Your task to perform on an android device: open app "Fetch Rewards" Image 0: 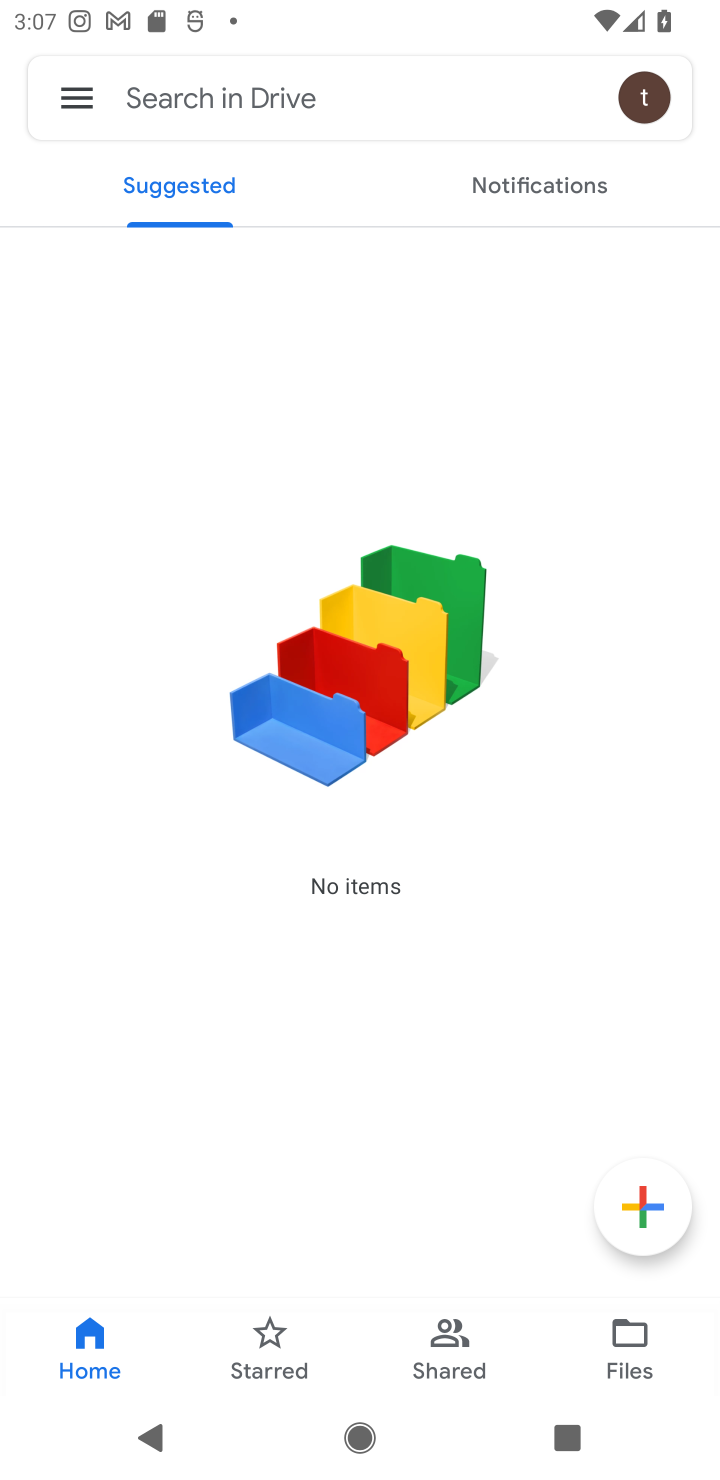
Step 0: press home button
Your task to perform on an android device: open app "Fetch Rewards" Image 1: 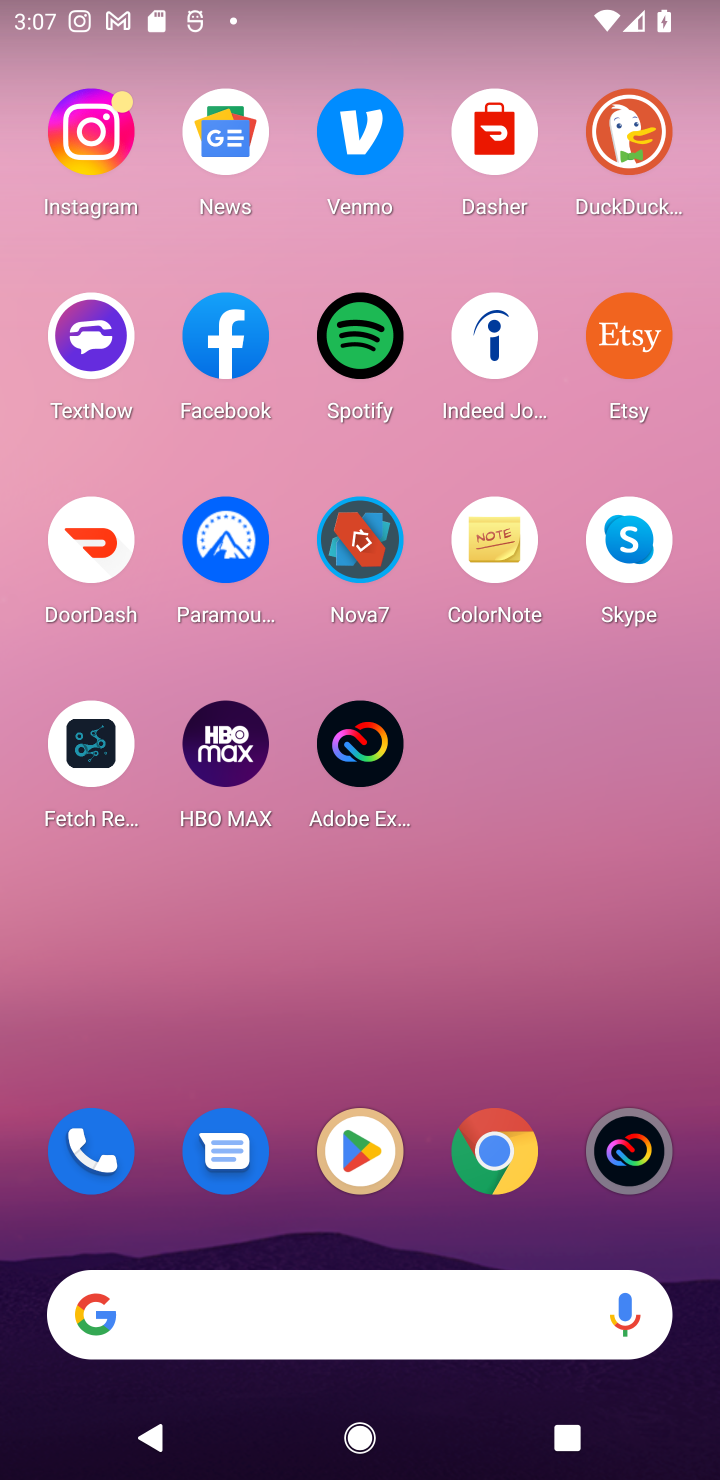
Step 1: press home button
Your task to perform on an android device: open app "Fetch Rewards" Image 2: 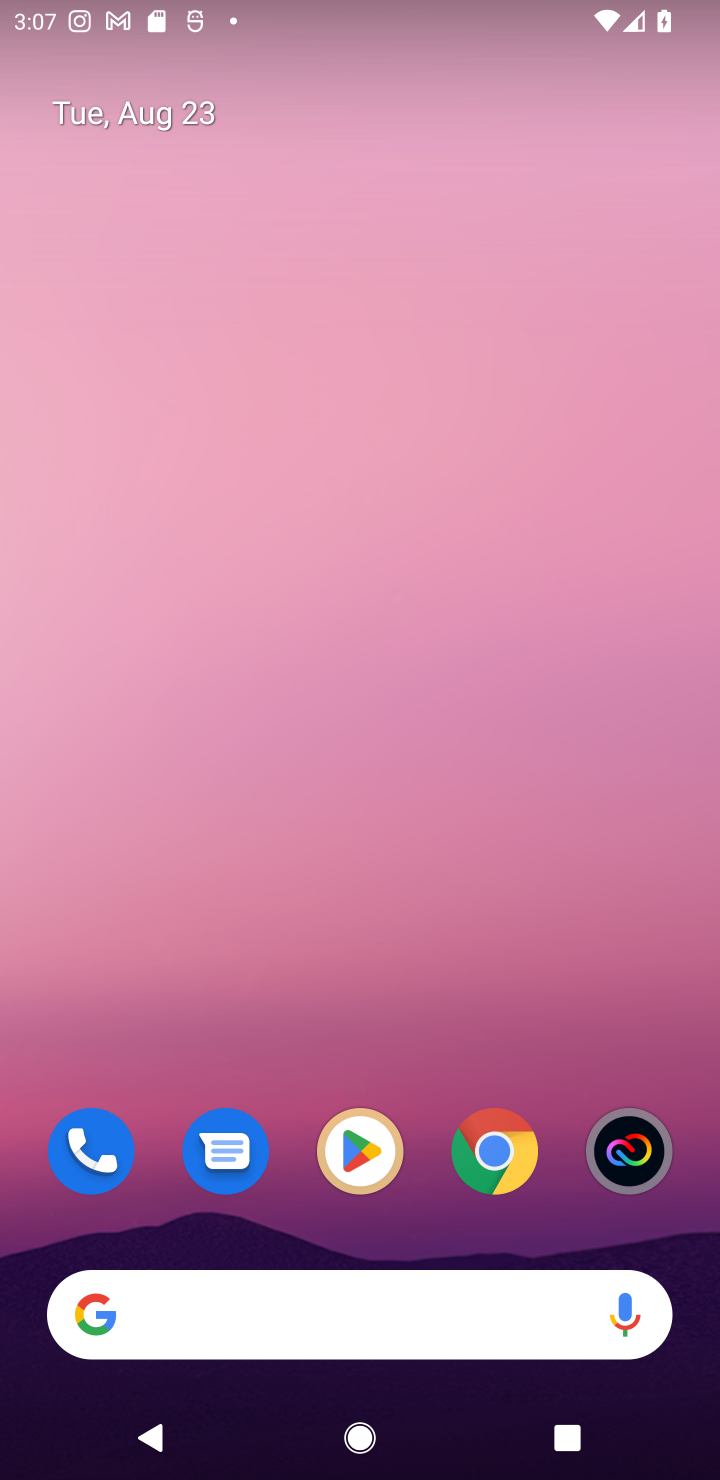
Step 2: click (362, 1156)
Your task to perform on an android device: open app "Fetch Rewards" Image 3: 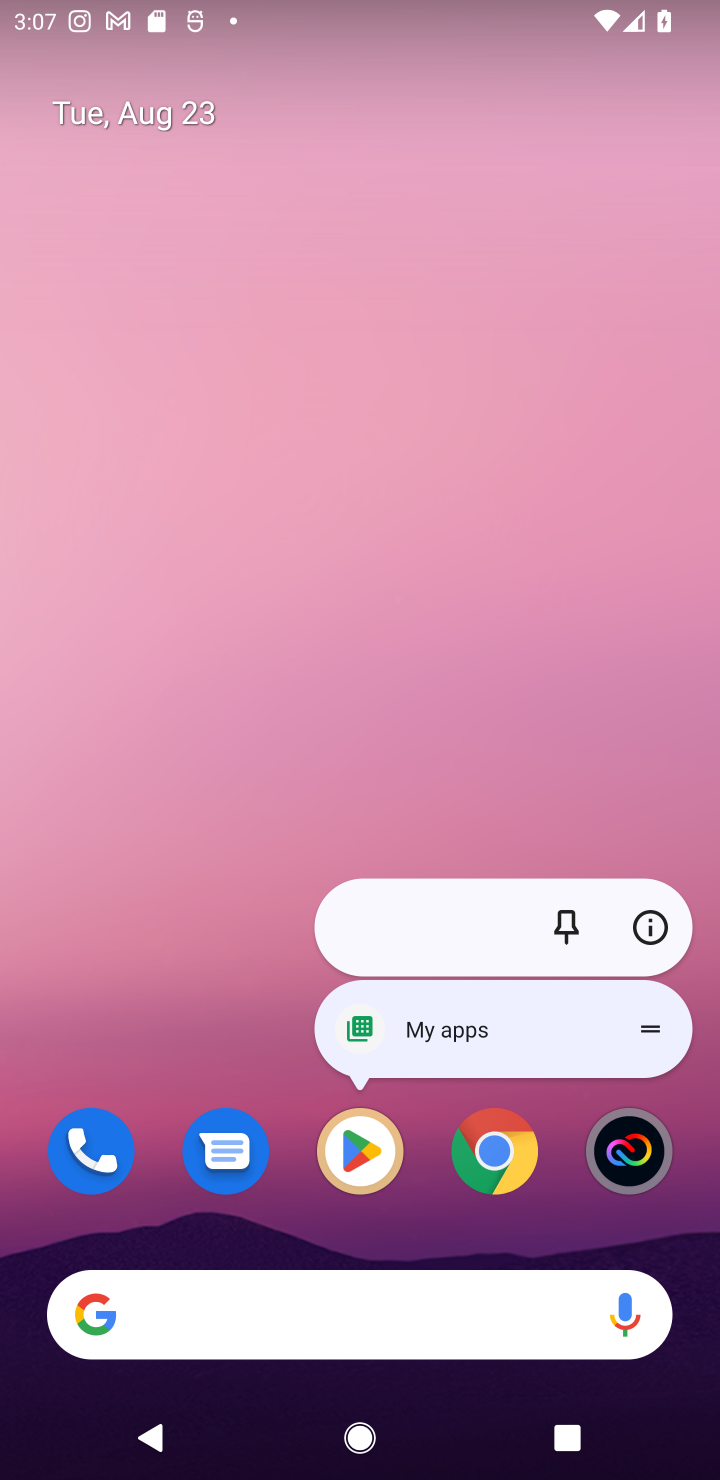
Step 3: click (362, 1158)
Your task to perform on an android device: open app "Fetch Rewards" Image 4: 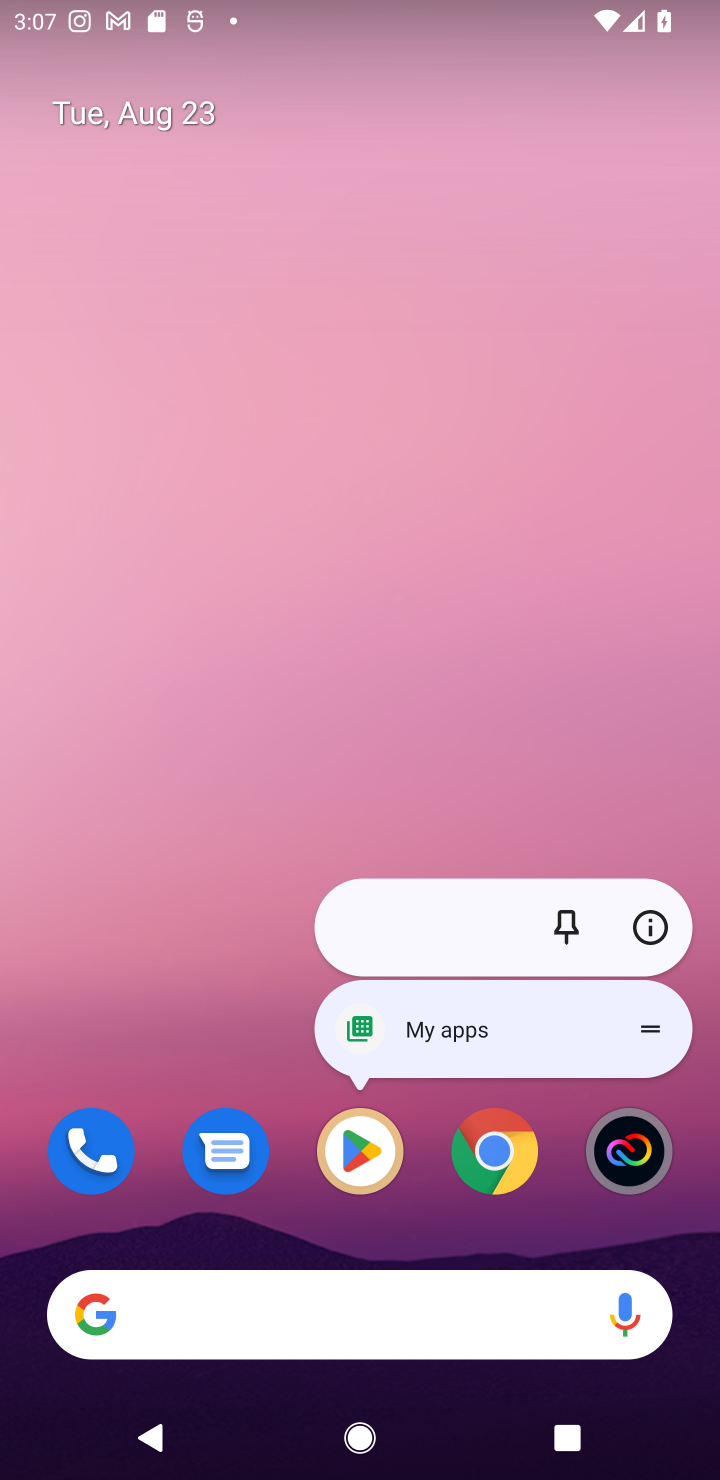
Step 4: click (362, 1158)
Your task to perform on an android device: open app "Fetch Rewards" Image 5: 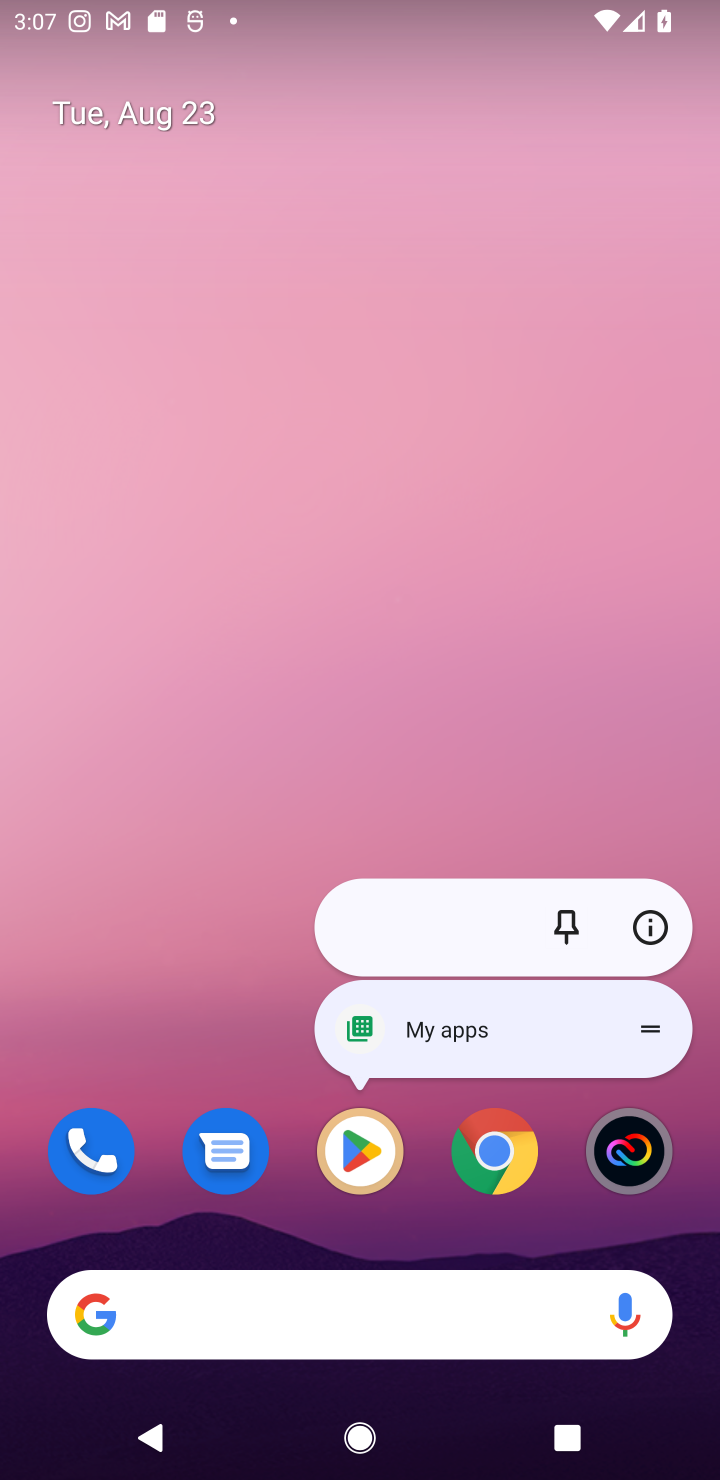
Step 5: click (357, 1156)
Your task to perform on an android device: open app "Fetch Rewards" Image 6: 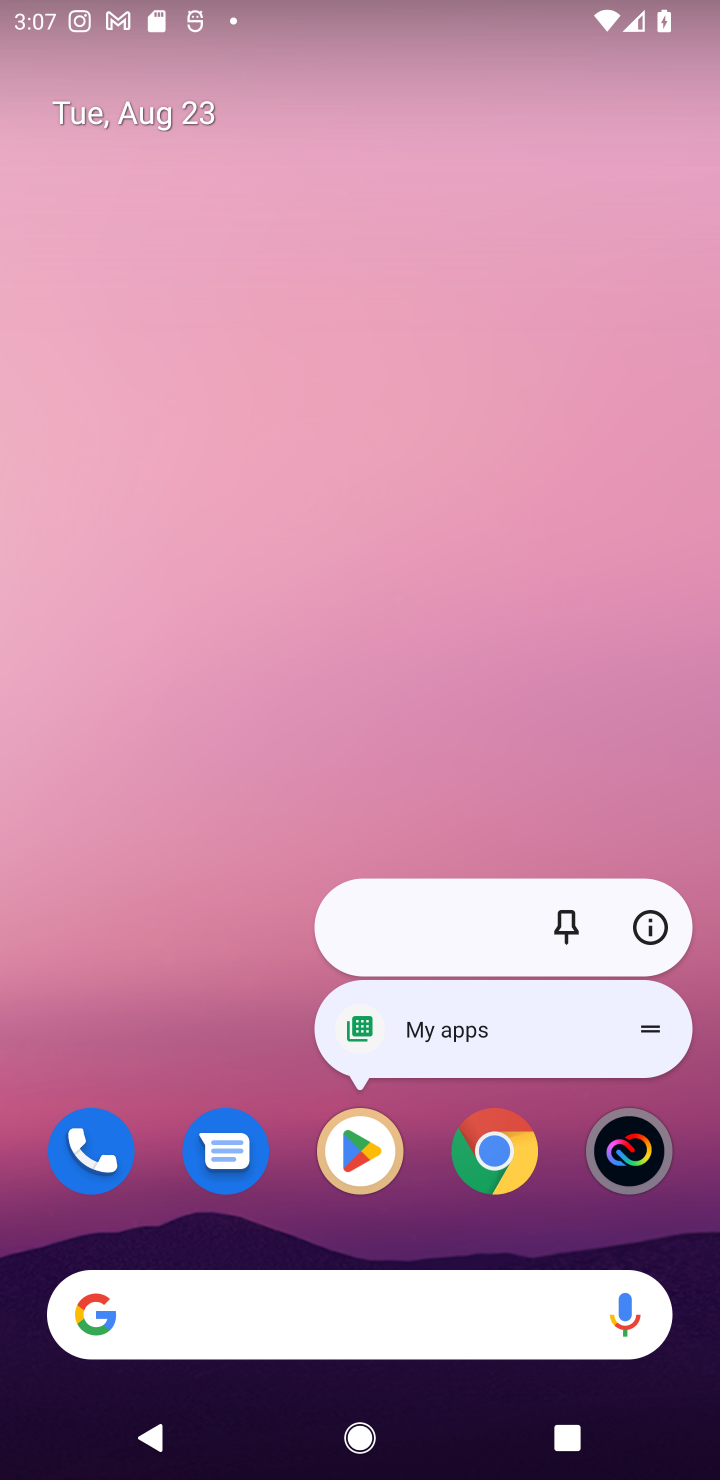
Step 6: click (357, 1156)
Your task to perform on an android device: open app "Fetch Rewards" Image 7: 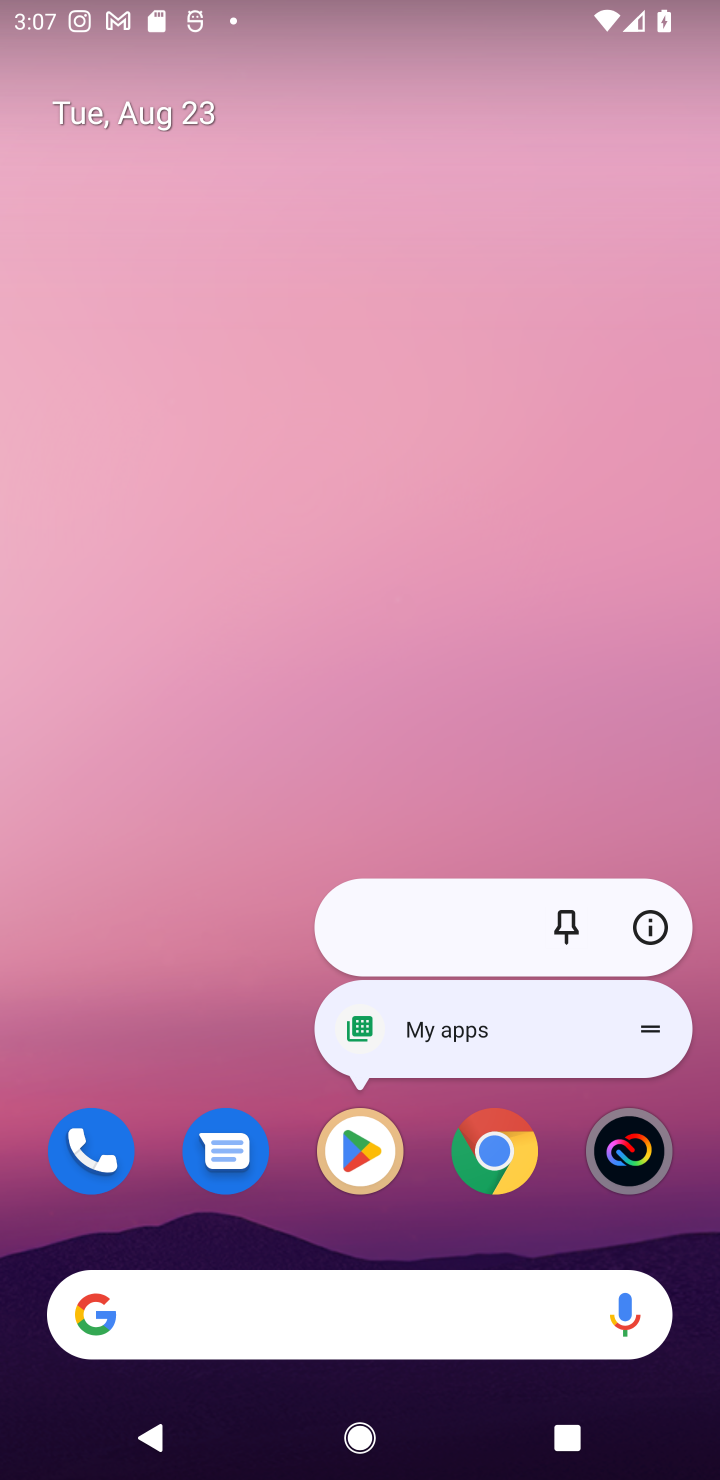
Step 7: click (357, 1154)
Your task to perform on an android device: open app "Fetch Rewards" Image 8: 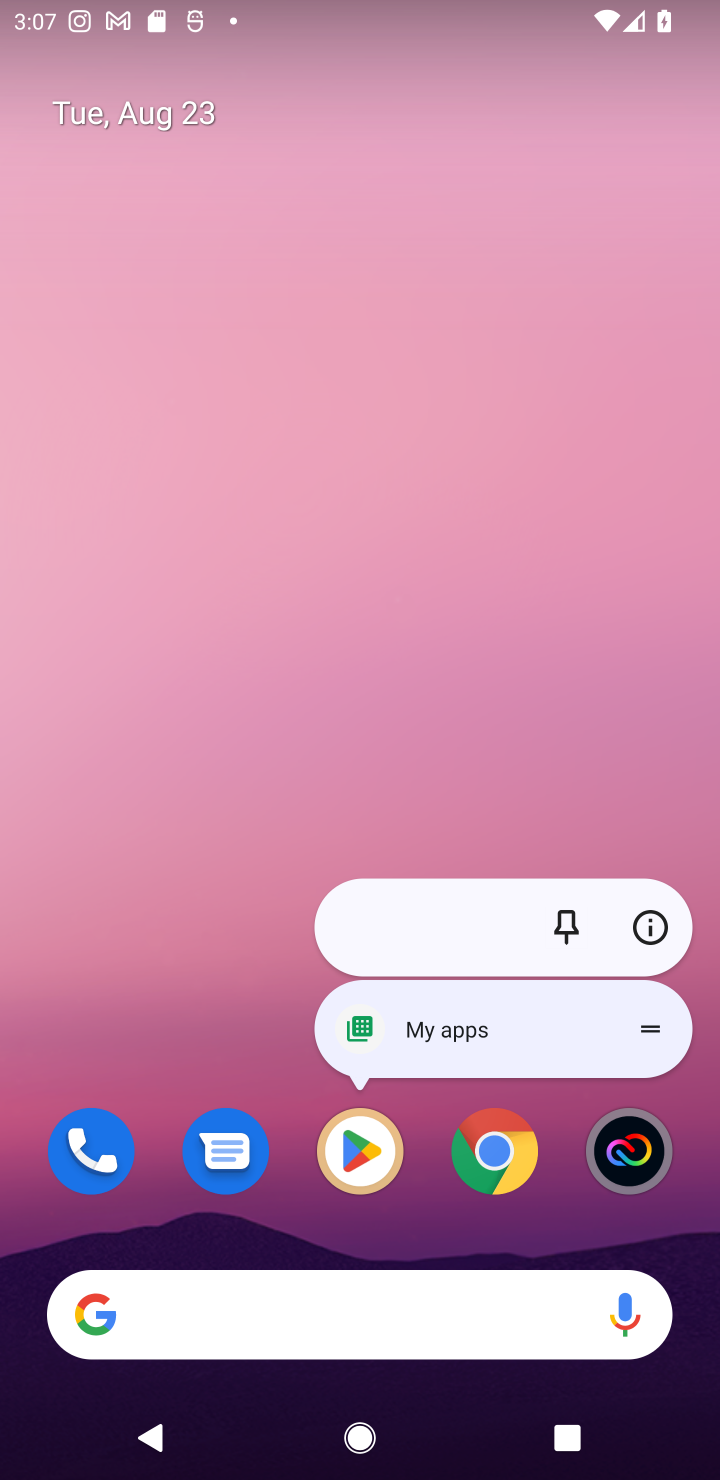
Step 8: click (357, 1156)
Your task to perform on an android device: open app "Fetch Rewards" Image 9: 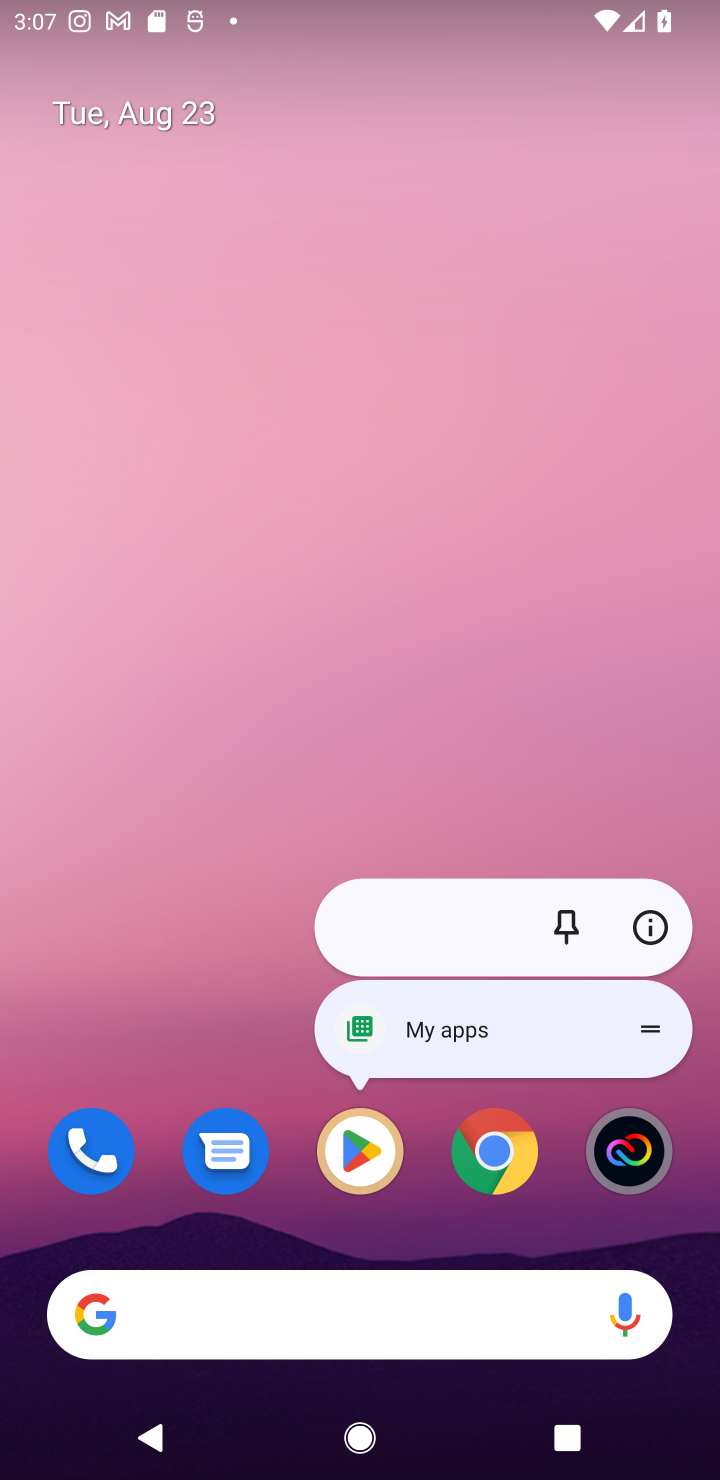
Step 9: click (357, 1152)
Your task to perform on an android device: open app "Fetch Rewards" Image 10: 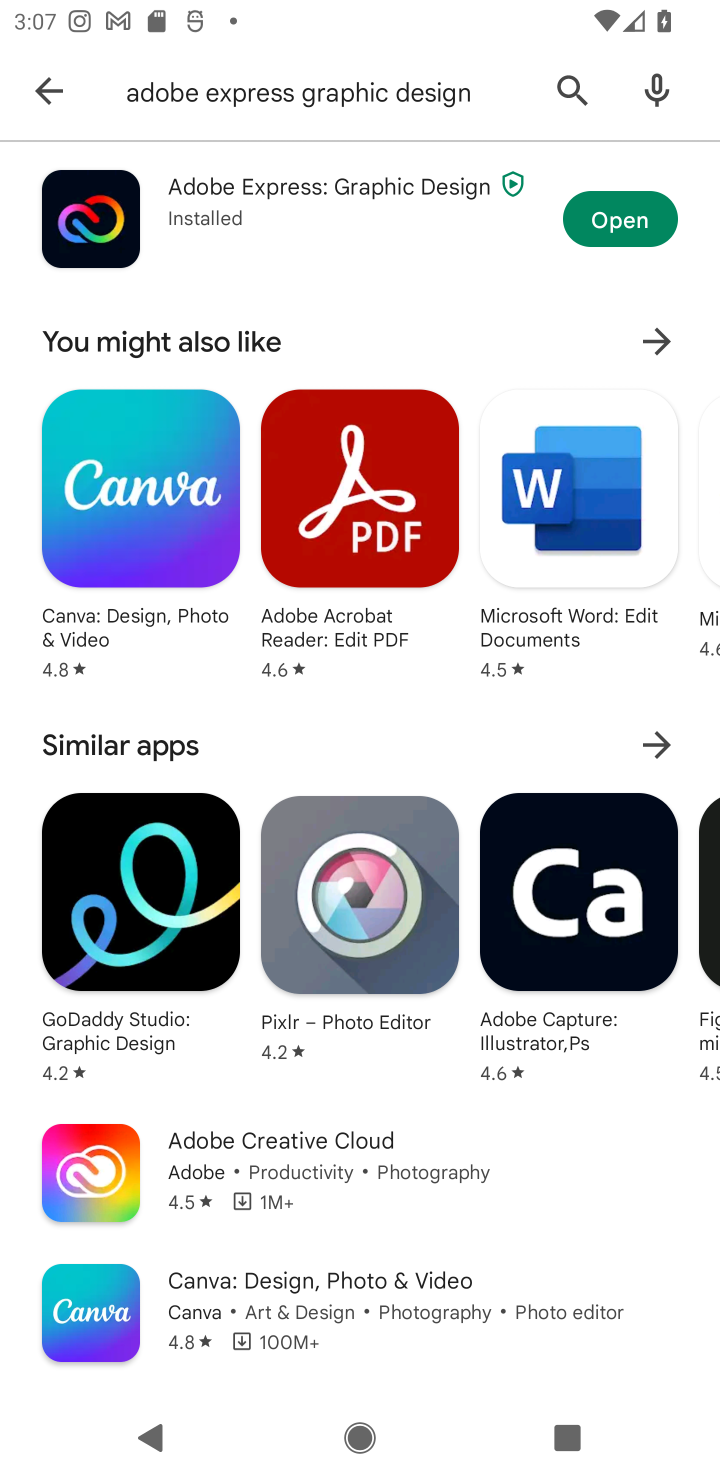
Step 10: click (567, 84)
Your task to perform on an android device: open app "Fetch Rewards" Image 11: 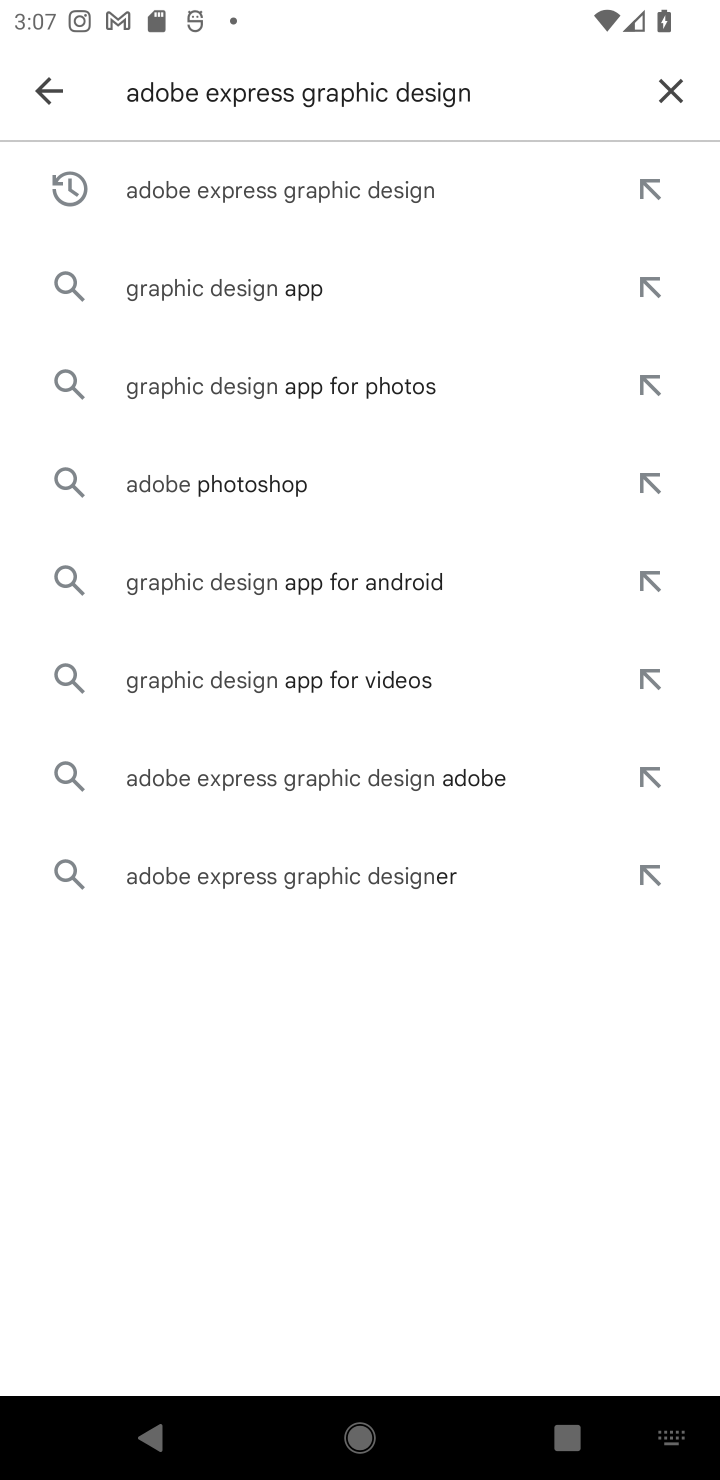
Step 11: click (661, 77)
Your task to perform on an android device: open app "Fetch Rewards" Image 12: 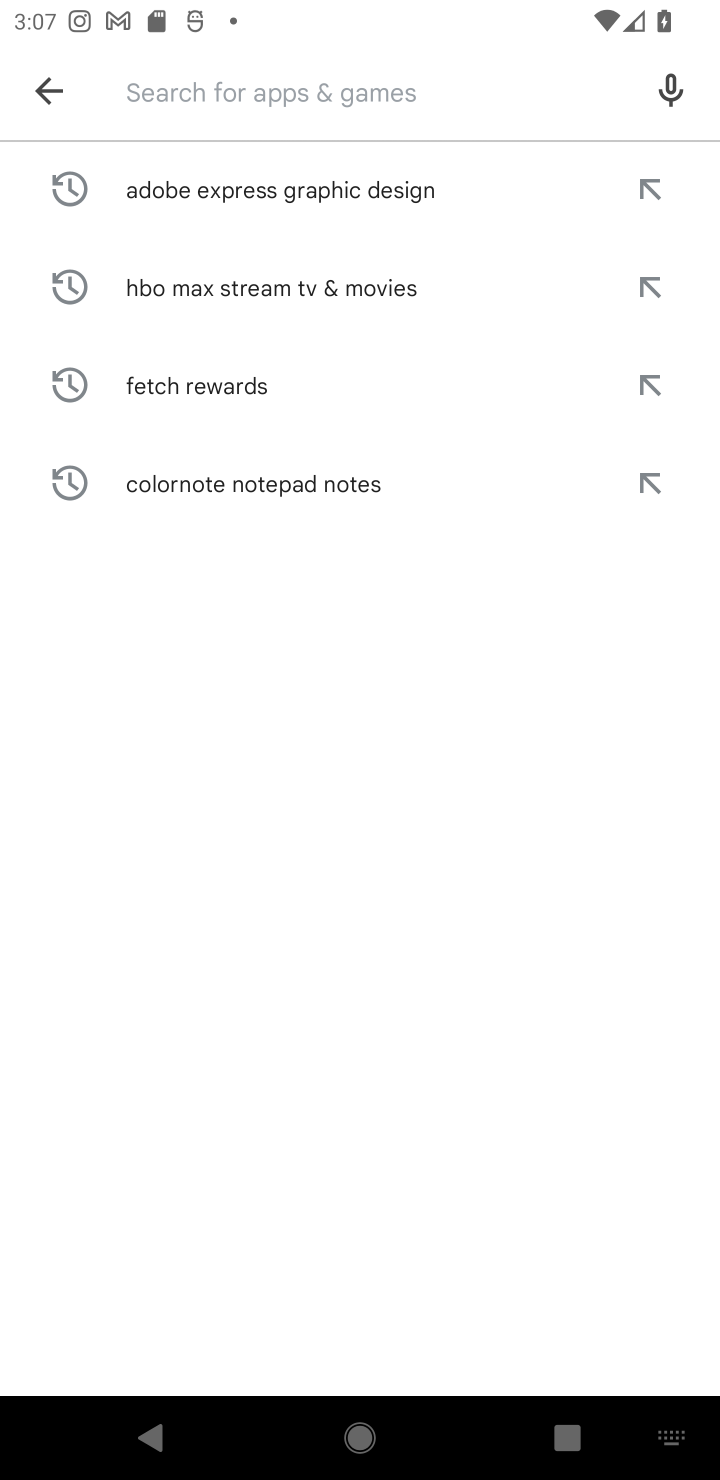
Step 12: type "Fetch Rewards"
Your task to perform on an android device: open app "Fetch Rewards" Image 13: 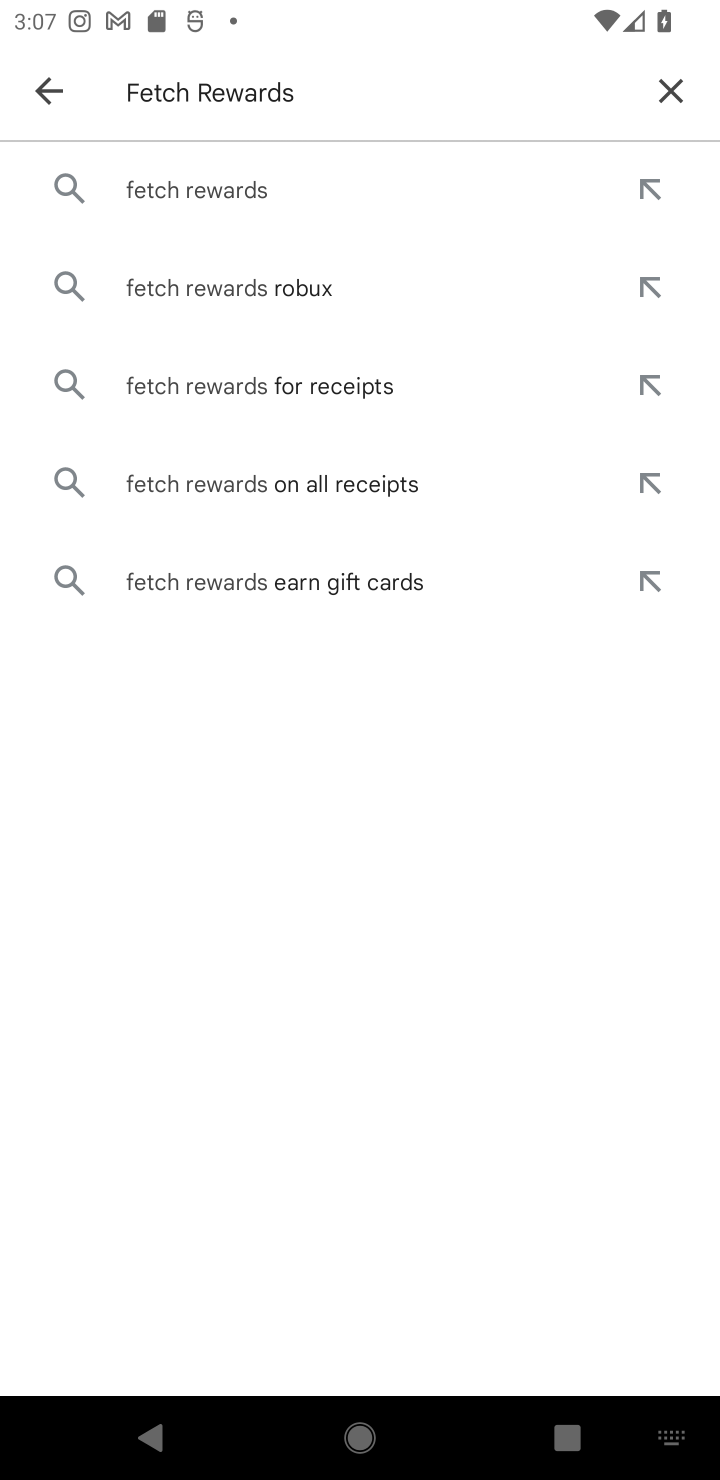
Step 13: click (206, 182)
Your task to perform on an android device: open app "Fetch Rewards" Image 14: 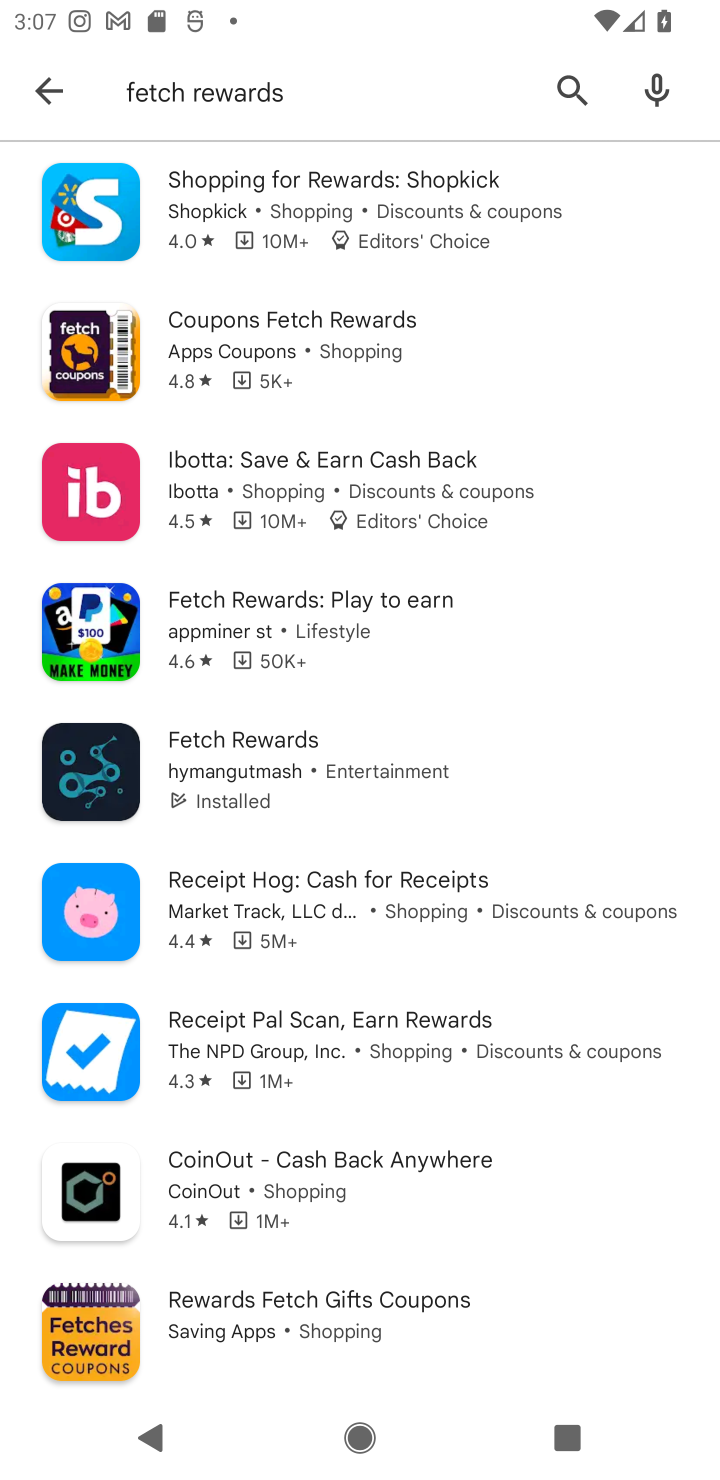
Step 14: click (255, 807)
Your task to perform on an android device: open app "Fetch Rewards" Image 15: 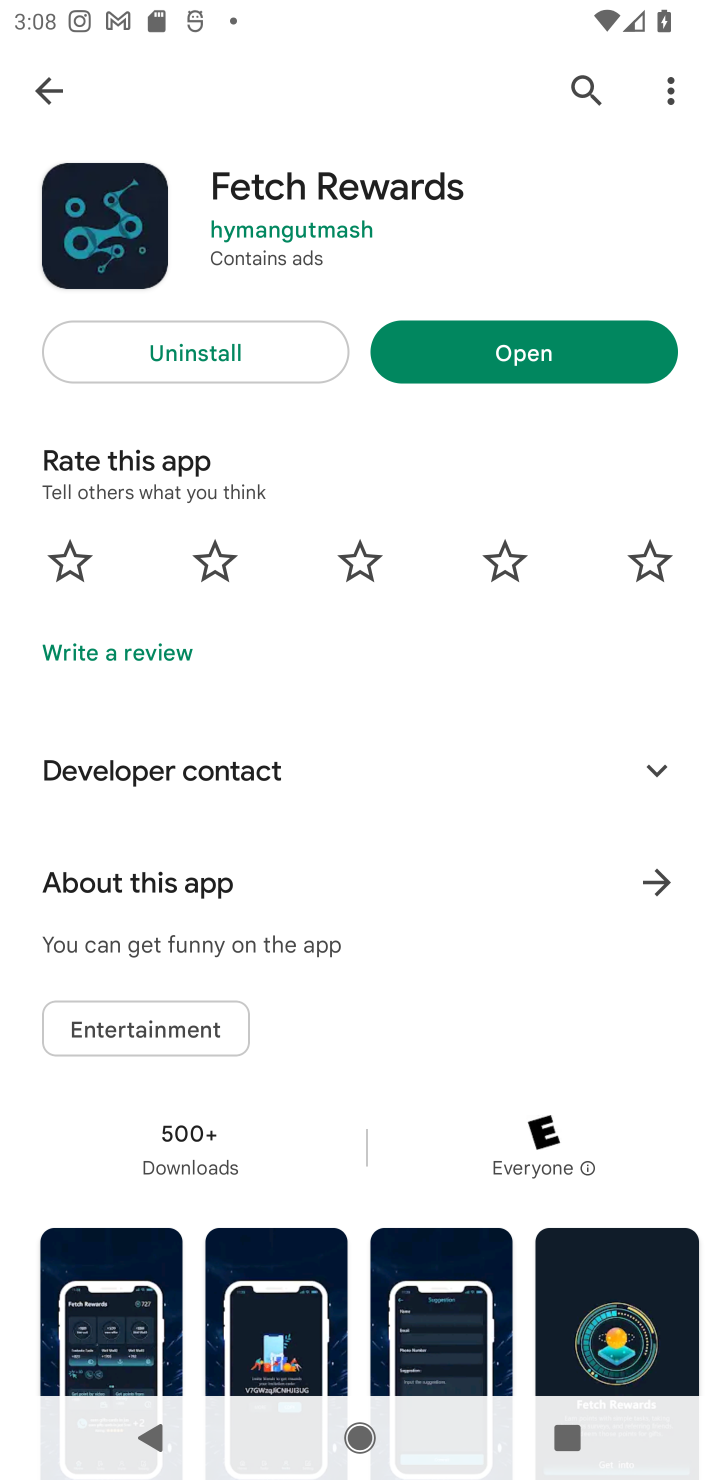
Step 15: click (510, 362)
Your task to perform on an android device: open app "Fetch Rewards" Image 16: 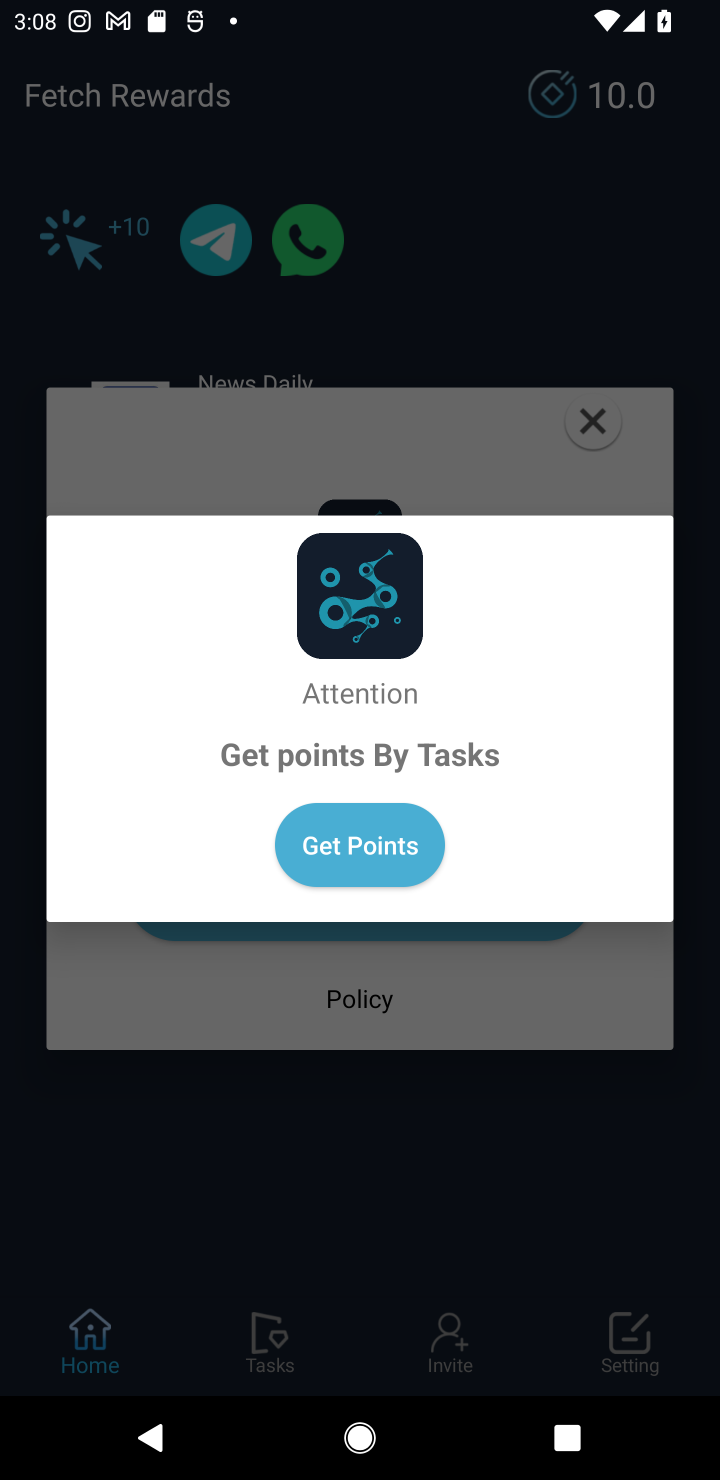
Step 16: task complete